Your task to perform on an android device: Open Google Image 0: 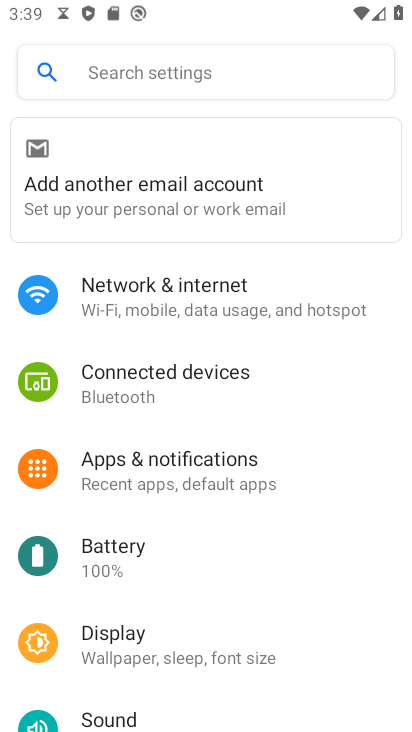
Step 0: press home button
Your task to perform on an android device: Open Google Image 1: 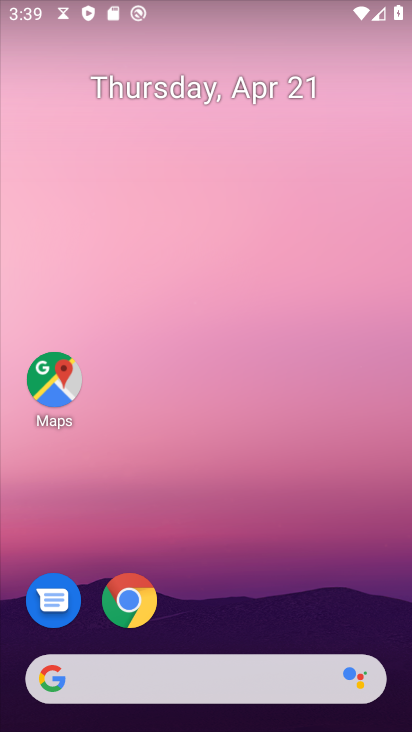
Step 1: drag from (232, 565) to (265, 2)
Your task to perform on an android device: Open Google Image 2: 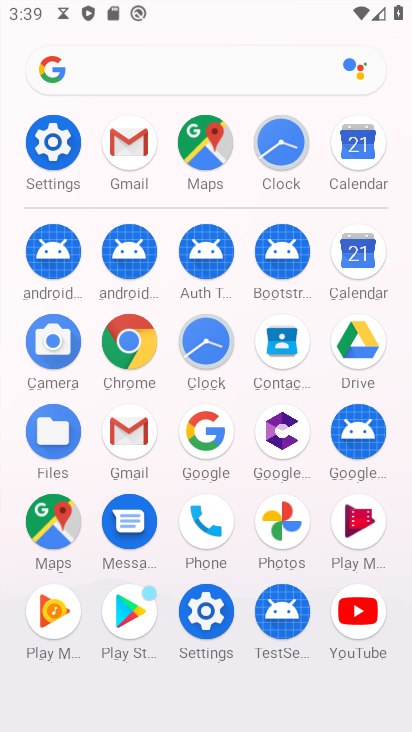
Step 2: click (206, 432)
Your task to perform on an android device: Open Google Image 3: 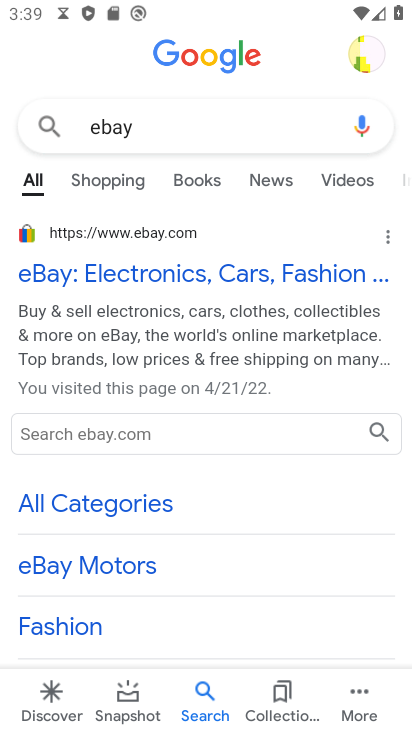
Step 3: task complete